Your task to perform on an android device: Go to ESPN.com Image 0: 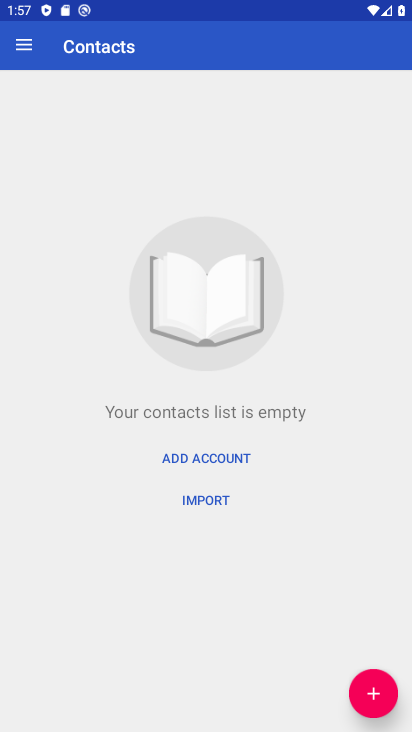
Step 0: press home button
Your task to perform on an android device: Go to ESPN.com Image 1: 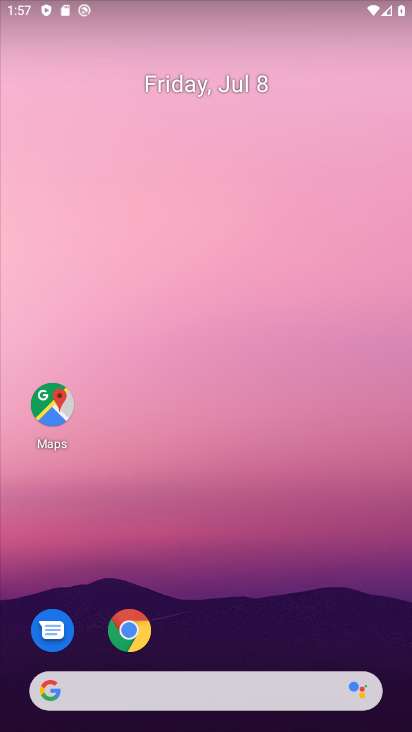
Step 1: drag from (278, 605) to (200, 172)
Your task to perform on an android device: Go to ESPN.com Image 2: 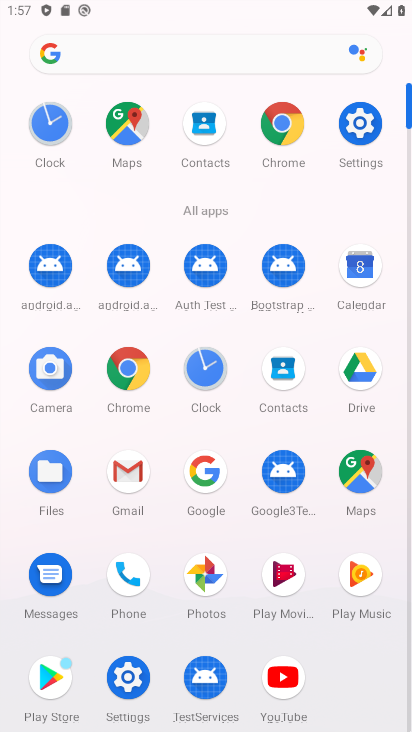
Step 2: click (283, 124)
Your task to perform on an android device: Go to ESPN.com Image 3: 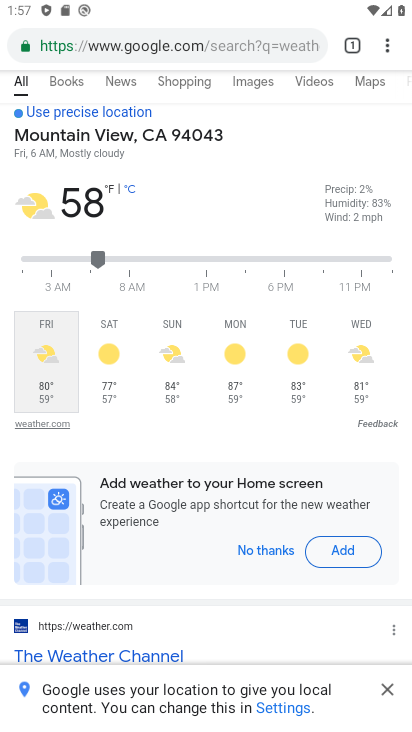
Step 3: click (194, 39)
Your task to perform on an android device: Go to ESPN.com Image 4: 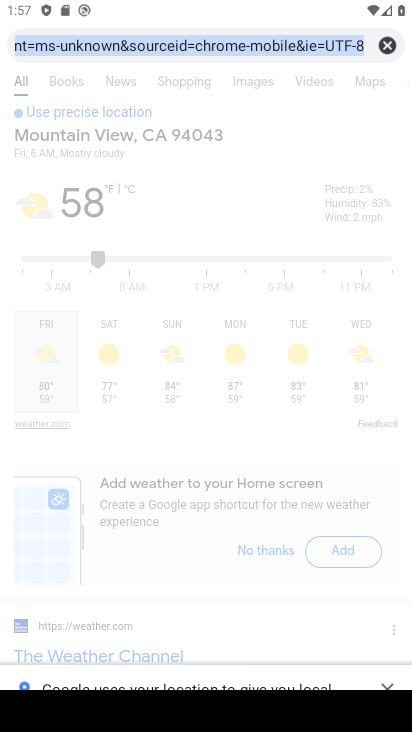
Step 4: type "espncom"
Your task to perform on an android device: Go to ESPN.com Image 5: 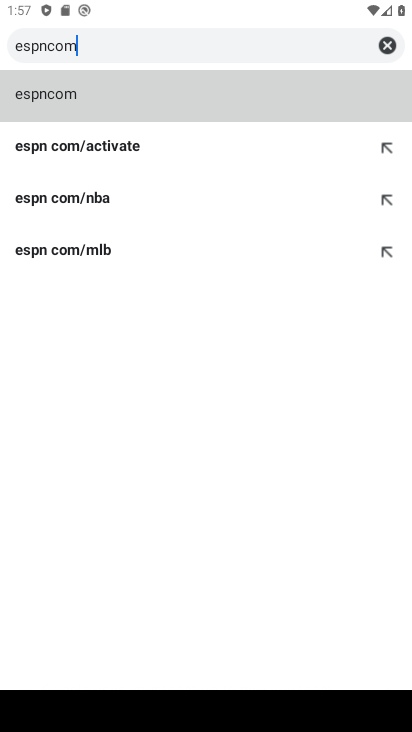
Step 5: press enter
Your task to perform on an android device: Go to ESPN.com Image 6: 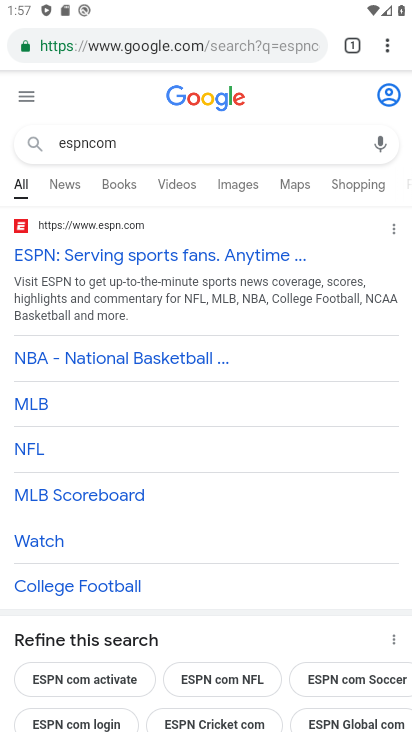
Step 6: click (168, 256)
Your task to perform on an android device: Go to ESPN.com Image 7: 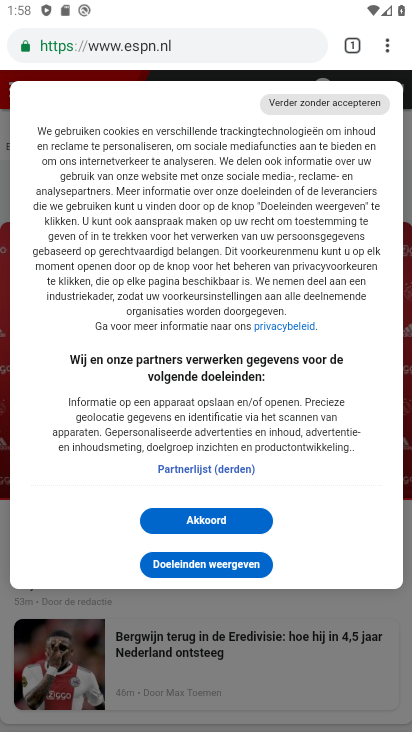
Step 7: task complete